Your task to perform on an android device: make emails show in primary in the gmail app Image 0: 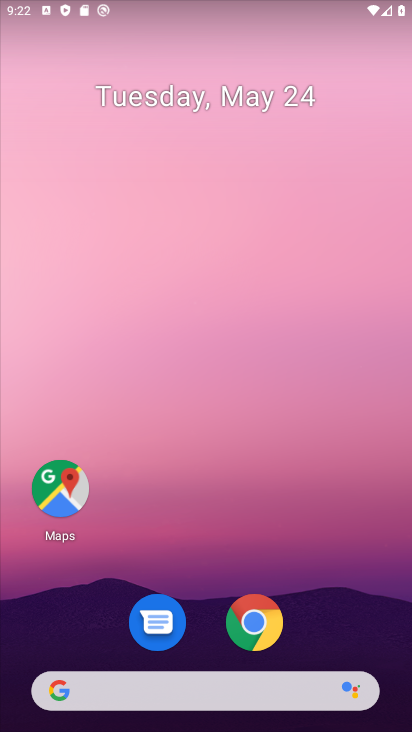
Step 0: press home button
Your task to perform on an android device: make emails show in primary in the gmail app Image 1: 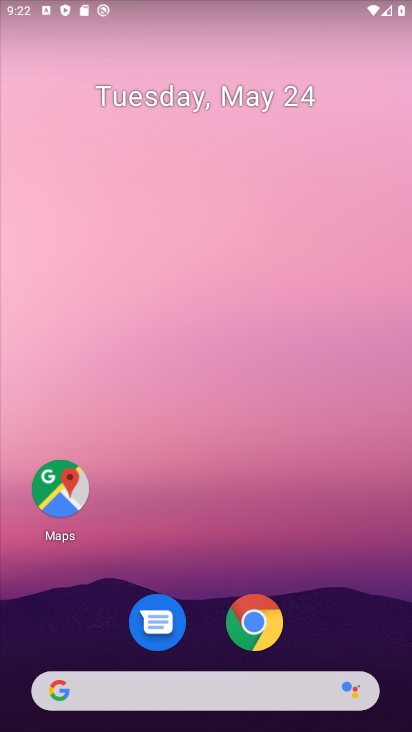
Step 1: drag from (331, 548) to (398, 146)
Your task to perform on an android device: make emails show in primary in the gmail app Image 2: 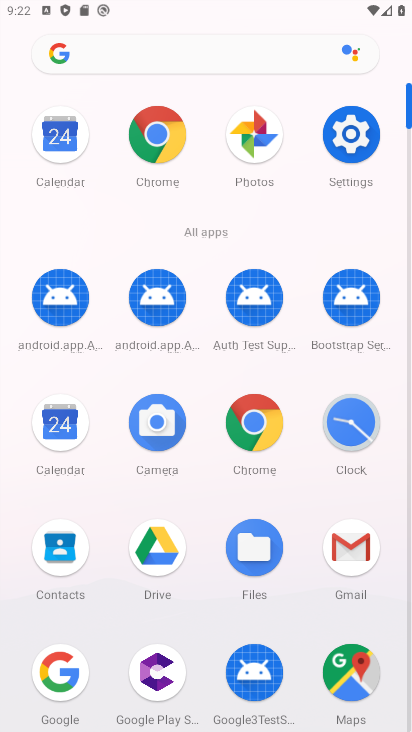
Step 2: click (343, 562)
Your task to perform on an android device: make emails show in primary in the gmail app Image 3: 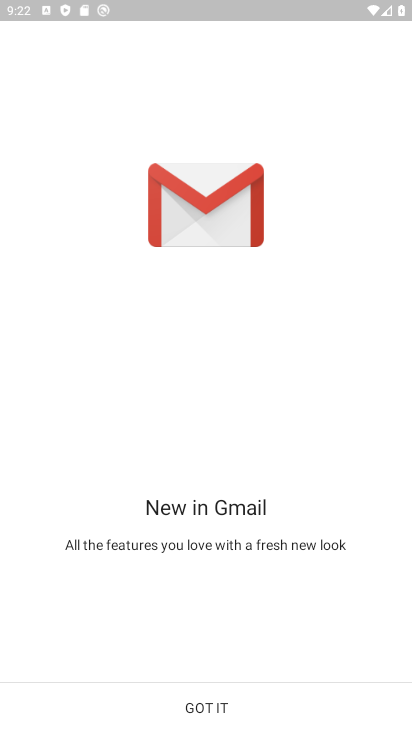
Step 3: click (243, 703)
Your task to perform on an android device: make emails show in primary in the gmail app Image 4: 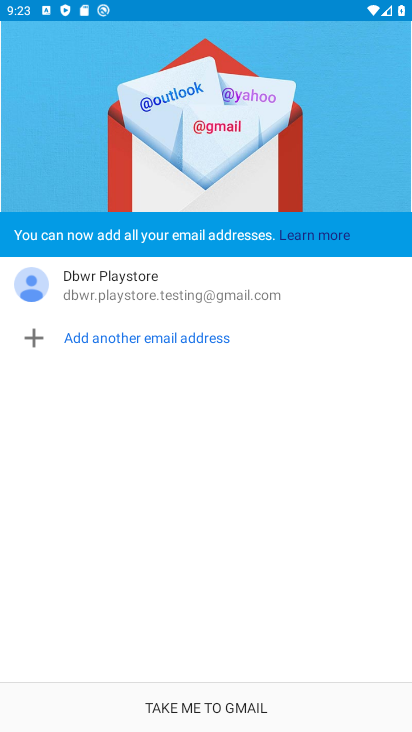
Step 4: click (241, 709)
Your task to perform on an android device: make emails show in primary in the gmail app Image 5: 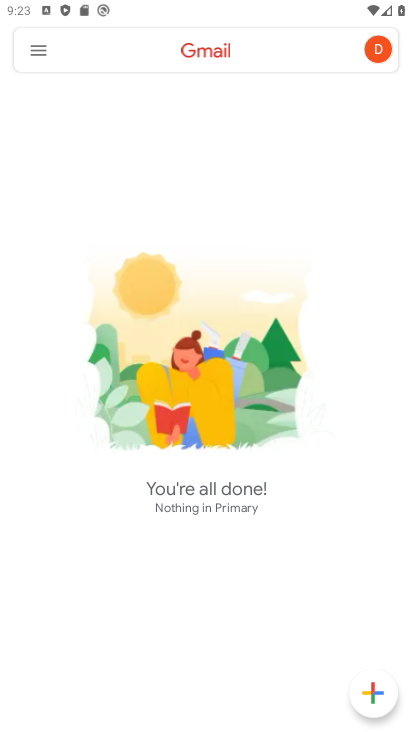
Step 5: click (43, 42)
Your task to perform on an android device: make emails show in primary in the gmail app Image 6: 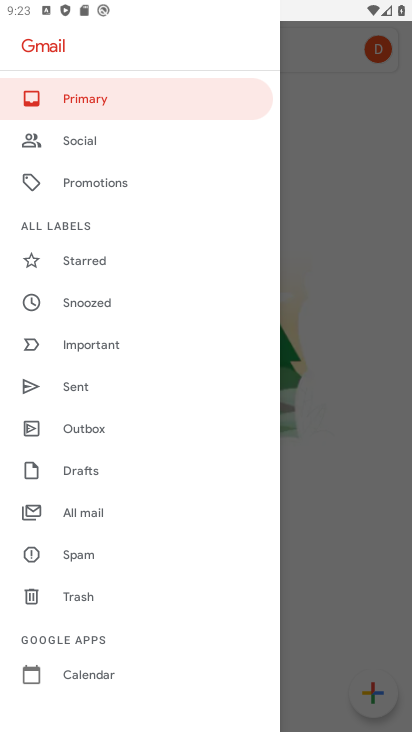
Step 6: click (145, 85)
Your task to perform on an android device: make emails show in primary in the gmail app Image 7: 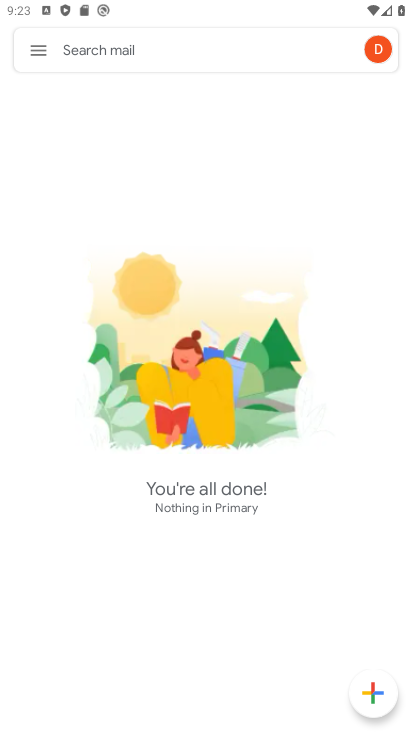
Step 7: task complete